Your task to perform on an android device: Empty the shopping cart on walmart. Image 0: 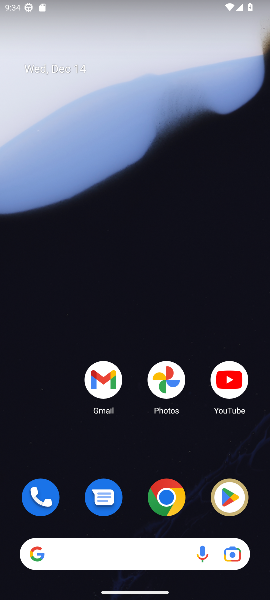
Step 0: press home button
Your task to perform on an android device: Empty the shopping cart on walmart. Image 1: 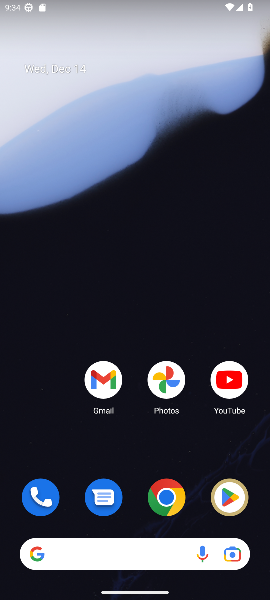
Step 1: click (165, 507)
Your task to perform on an android device: Empty the shopping cart on walmart. Image 2: 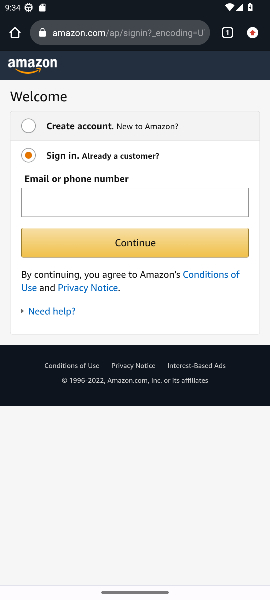
Step 2: click (106, 41)
Your task to perform on an android device: Empty the shopping cart on walmart. Image 3: 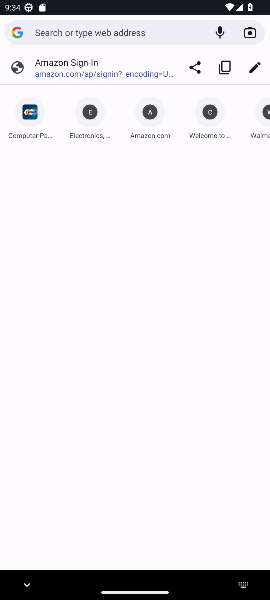
Step 3: type "walmart"
Your task to perform on an android device: Empty the shopping cart on walmart. Image 4: 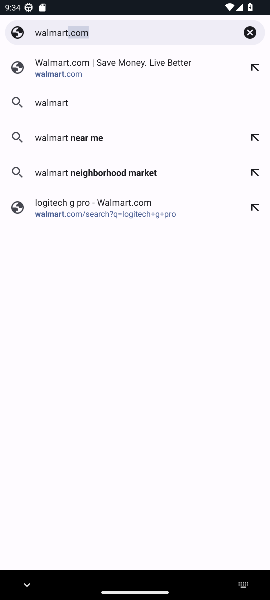
Step 4: click (67, 69)
Your task to perform on an android device: Empty the shopping cart on walmart. Image 5: 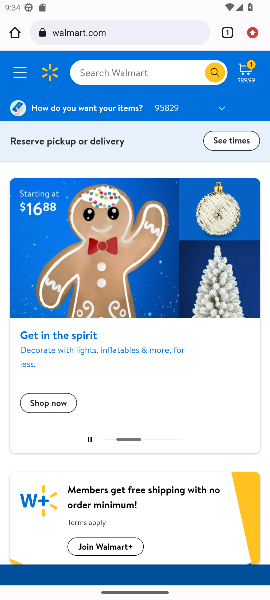
Step 5: click (249, 77)
Your task to perform on an android device: Empty the shopping cart on walmart. Image 6: 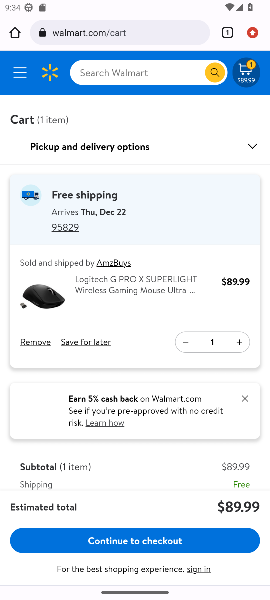
Step 6: click (186, 343)
Your task to perform on an android device: Empty the shopping cart on walmart. Image 7: 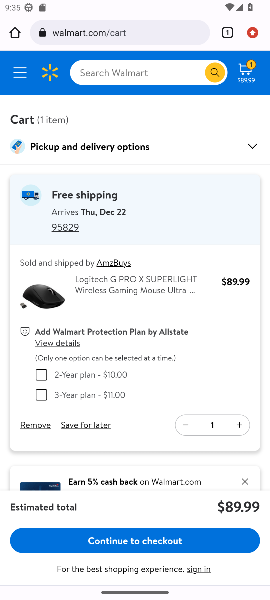
Step 7: click (185, 428)
Your task to perform on an android device: Empty the shopping cart on walmart. Image 8: 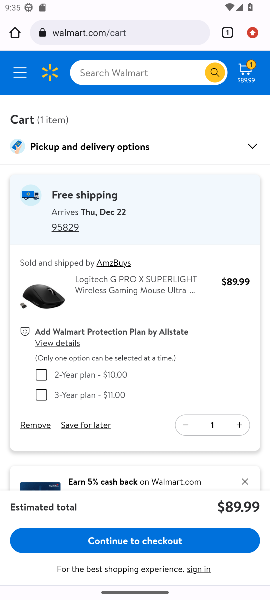
Step 8: click (185, 428)
Your task to perform on an android device: Empty the shopping cart on walmart. Image 9: 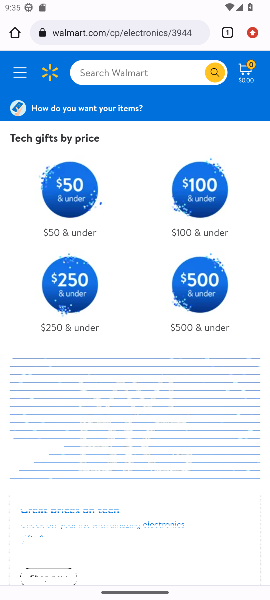
Step 9: task complete